Your task to perform on an android device: Open network settings Image 0: 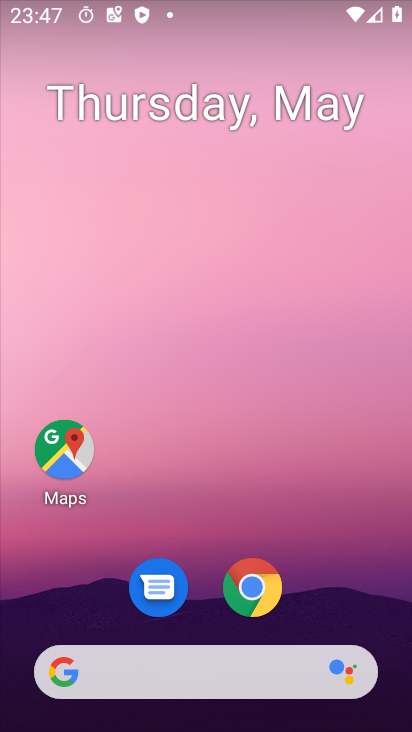
Step 0: drag from (342, 624) to (331, 16)
Your task to perform on an android device: Open network settings Image 1: 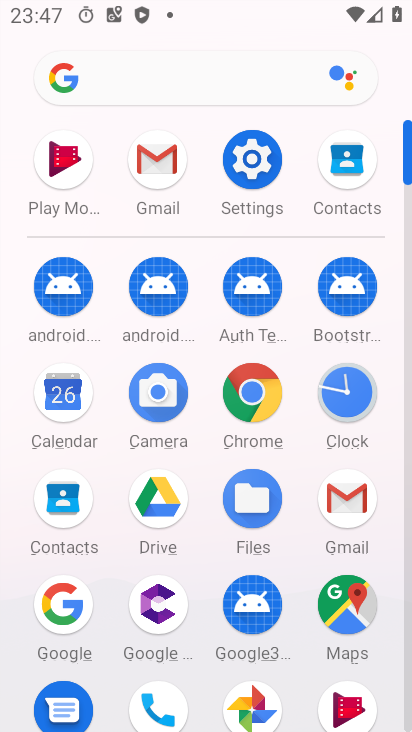
Step 1: click (256, 161)
Your task to perform on an android device: Open network settings Image 2: 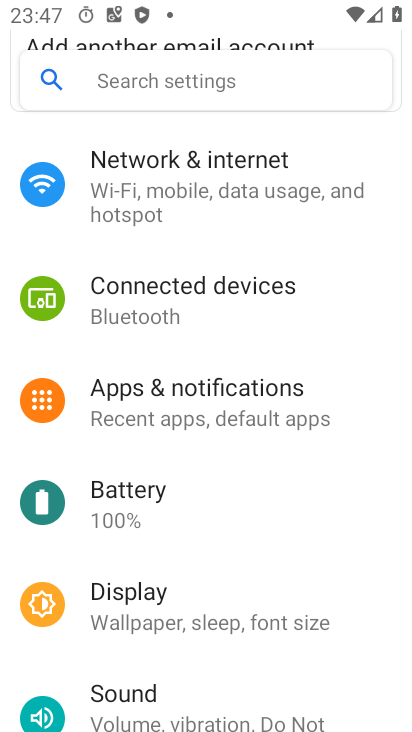
Step 2: click (203, 196)
Your task to perform on an android device: Open network settings Image 3: 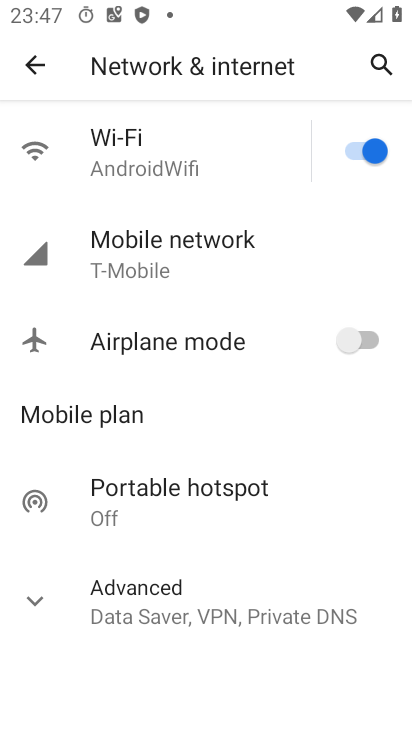
Step 3: click (127, 264)
Your task to perform on an android device: Open network settings Image 4: 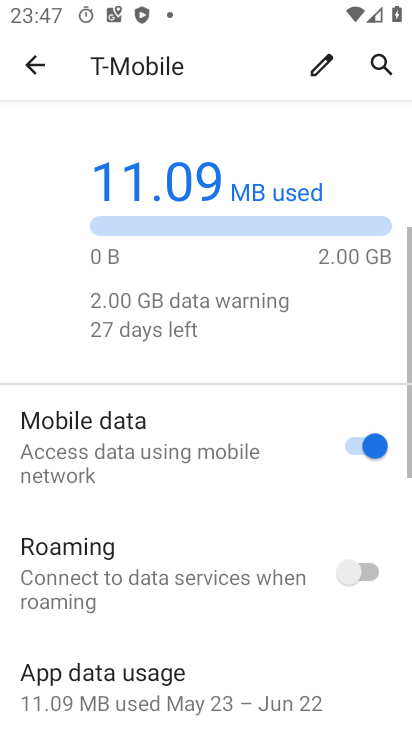
Step 4: drag from (179, 613) to (183, 49)
Your task to perform on an android device: Open network settings Image 5: 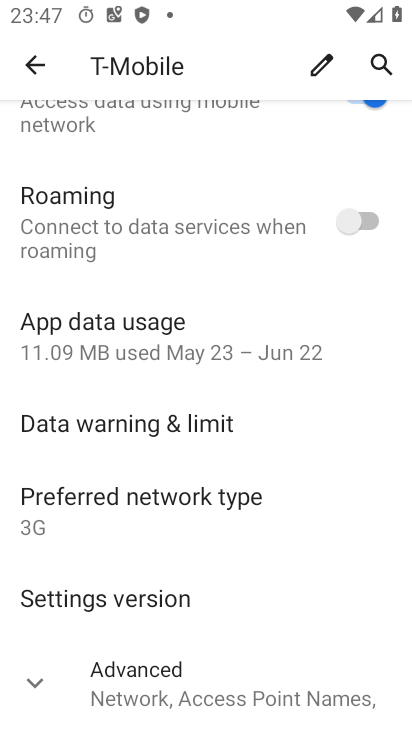
Step 5: click (32, 689)
Your task to perform on an android device: Open network settings Image 6: 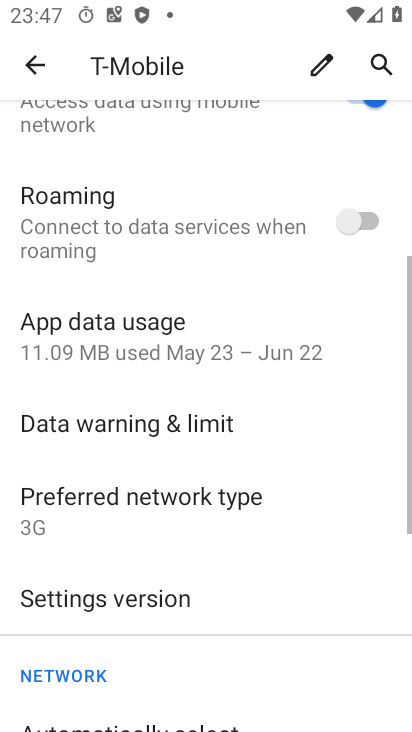
Step 6: task complete